Your task to perform on an android device: change alarm snooze length Image 0: 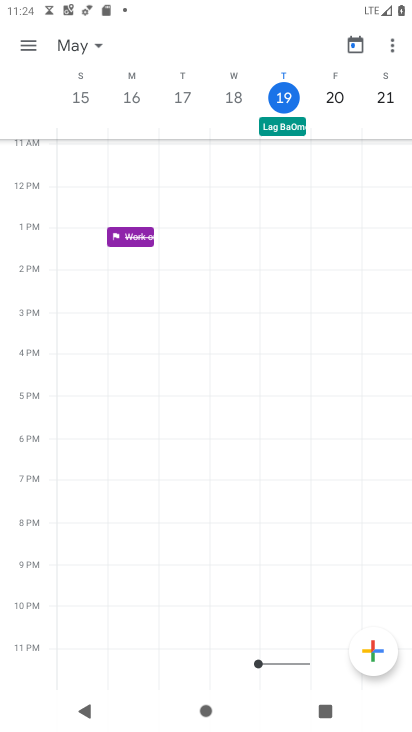
Step 0: press home button
Your task to perform on an android device: change alarm snooze length Image 1: 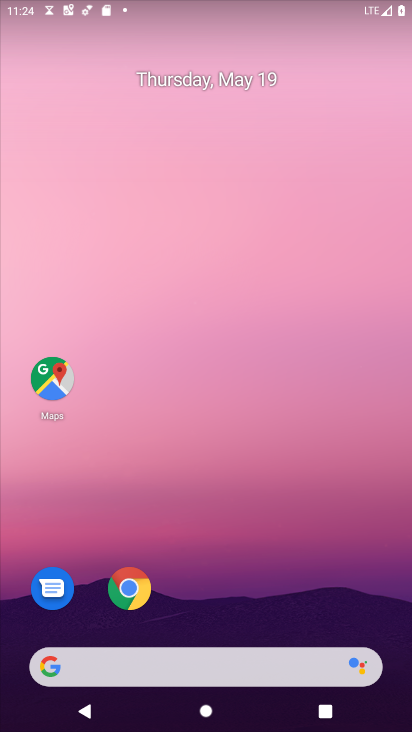
Step 1: drag from (293, 563) to (166, 47)
Your task to perform on an android device: change alarm snooze length Image 2: 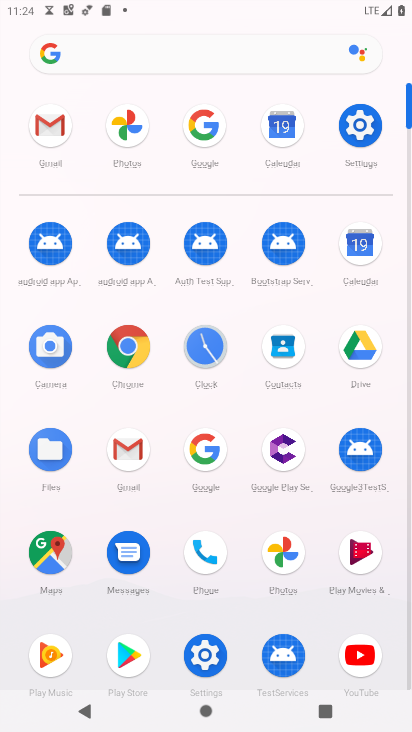
Step 2: click (201, 348)
Your task to perform on an android device: change alarm snooze length Image 3: 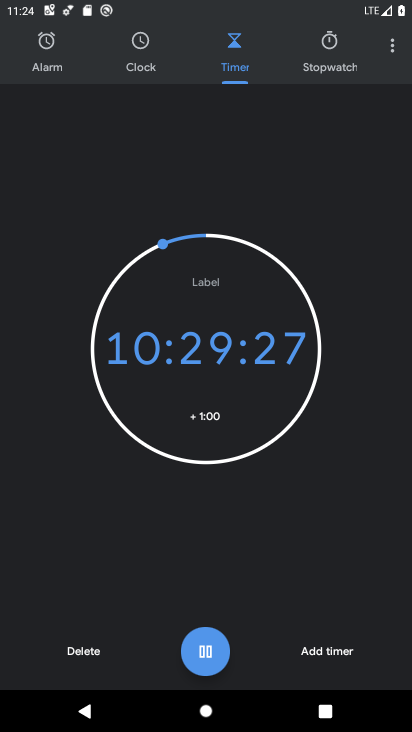
Step 3: click (393, 43)
Your task to perform on an android device: change alarm snooze length Image 4: 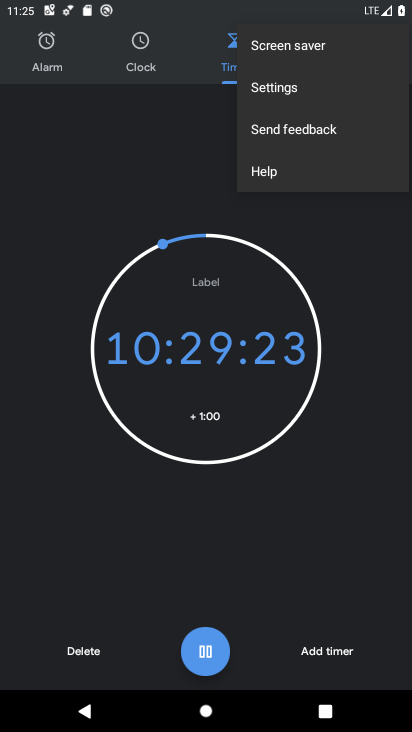
Step 4: click (282, 84)
Your task to perform on an android device: change alarm snooze length Image 5: 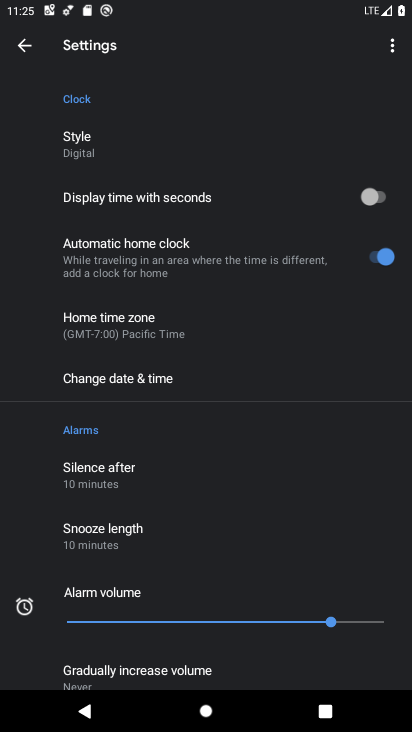
Step 5: click (164, 539)
Your task to perform on an android device: change alarm snooze length Image 6: 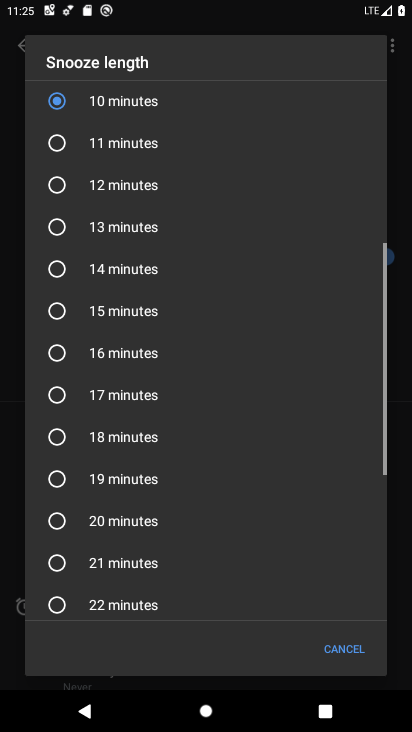
Step 6: click (133, 144)
Your task to perform on an android device: change alarm snooze length Image 7: 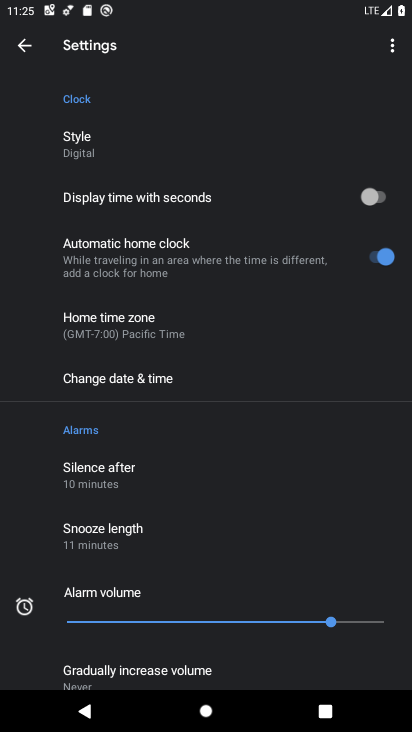
Step 7: click (176, 528)
Your task to perform on an android device: change alarm snooze length Image 8: 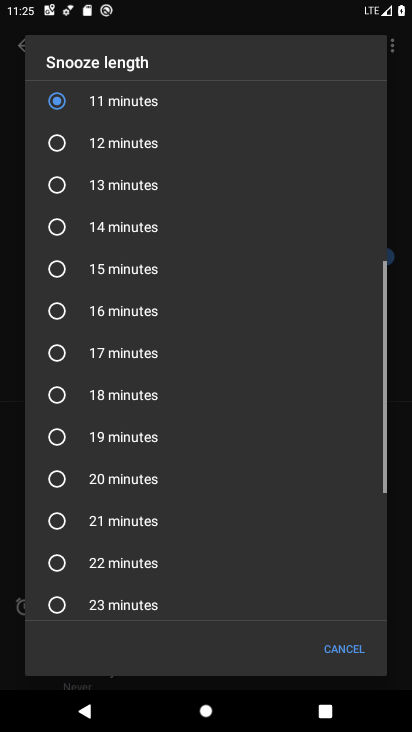
Step 8: click (120, 155)
Your task to perform on an android device: change alarm snooze length Image 9: 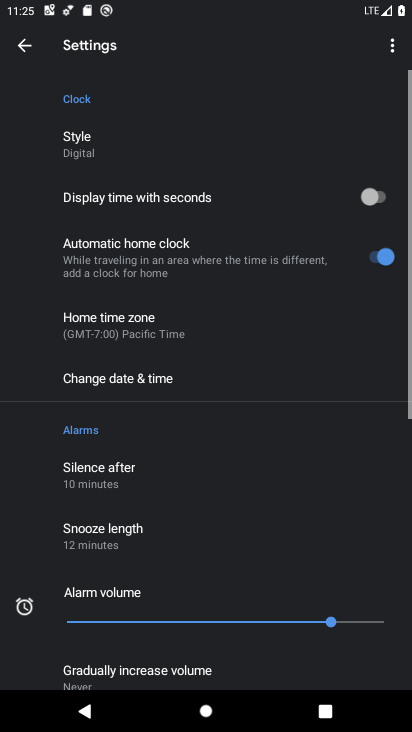
Step 9: task complete